Your task to perform on an android device: Toggle the flashlight Image 0: 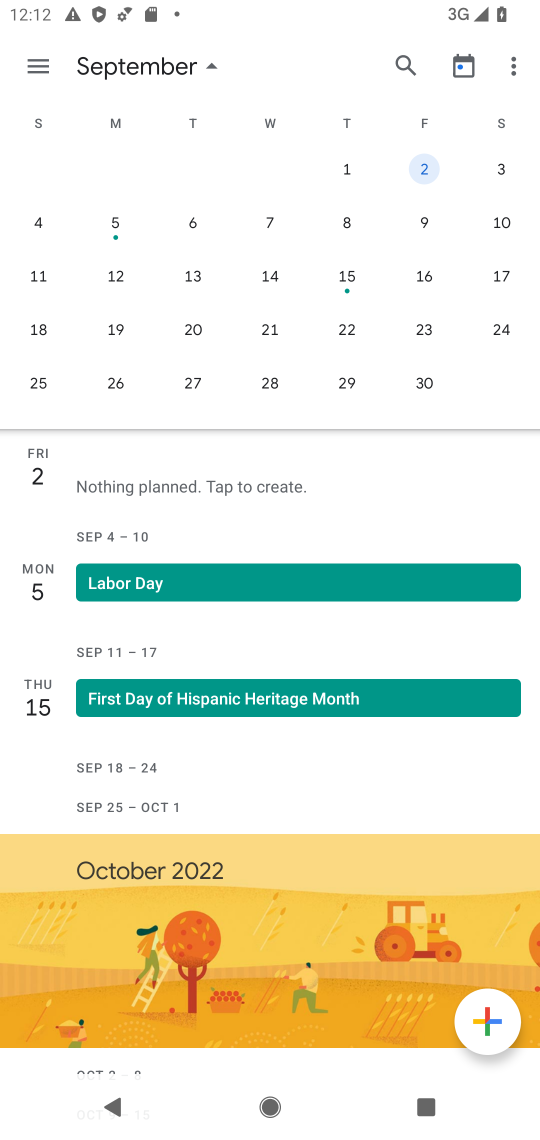
Step 0: drag from (217, 854) to (278, 493)
Your task to perform on an android device: Toggle the flashlight Image 1: 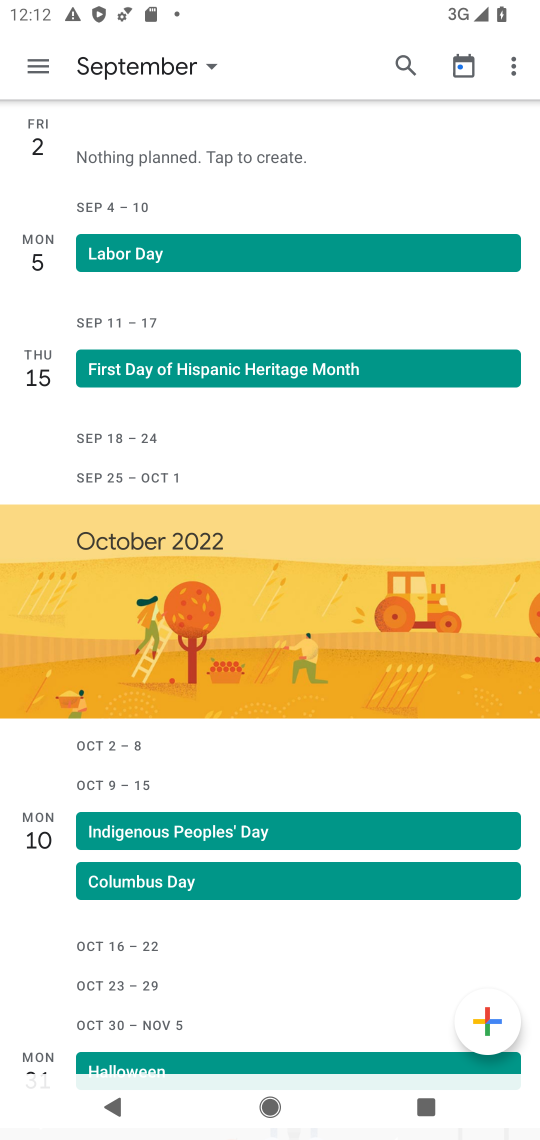
Step 1: drag from (291, 462) to (351, 1129)
Your task to perform on an android device: Toggle the flashlight Image 2: 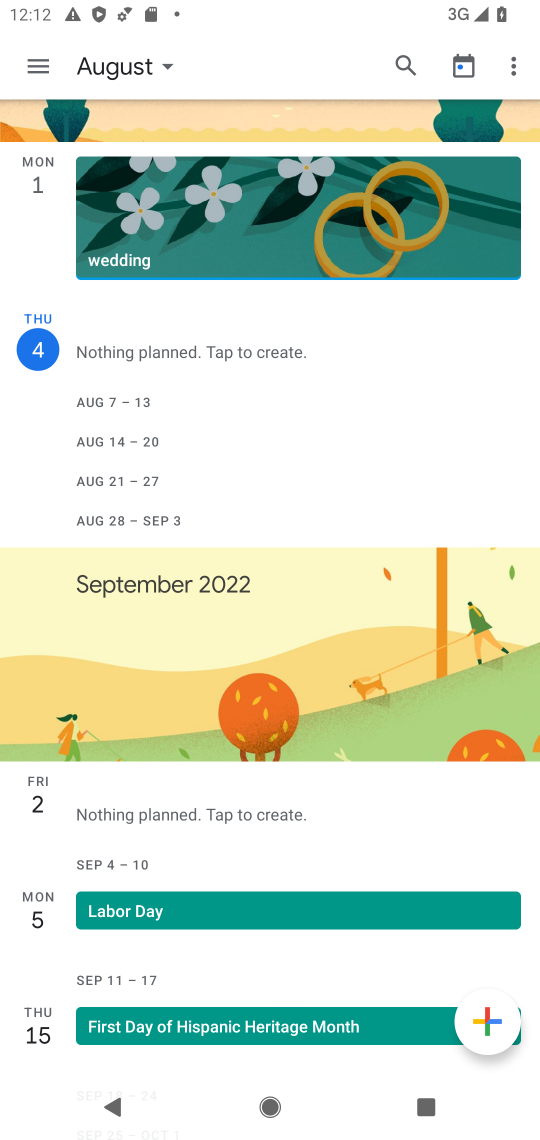
Step 2: press home button
Your task to perform on an android device: Toggle the flashlight Image 3: 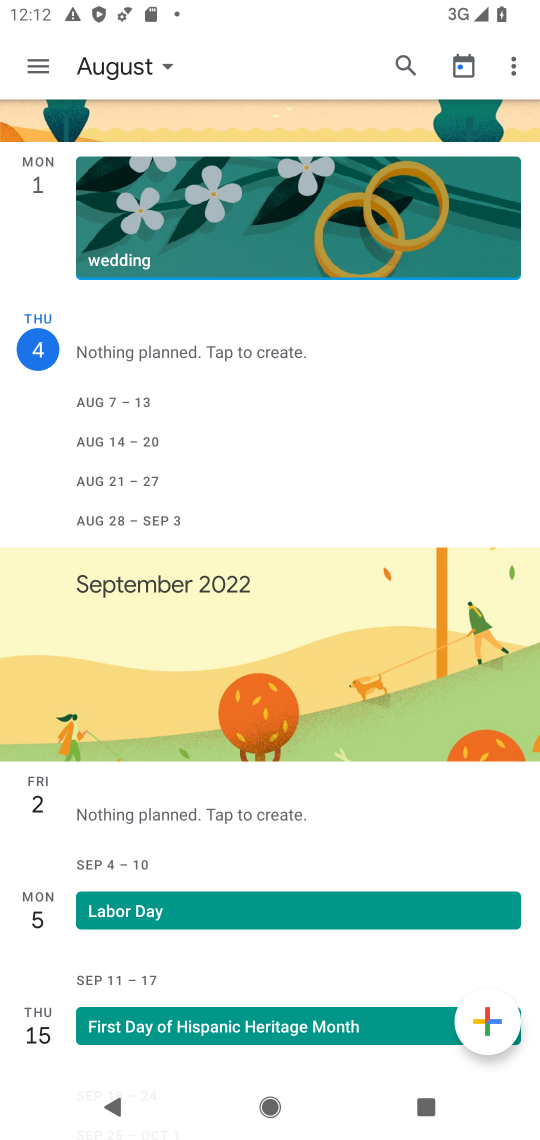
Step 3: drag from (351, 1129) to (535, 822)
Your task to perform on an android device: Toggle the flashlight Image 4: 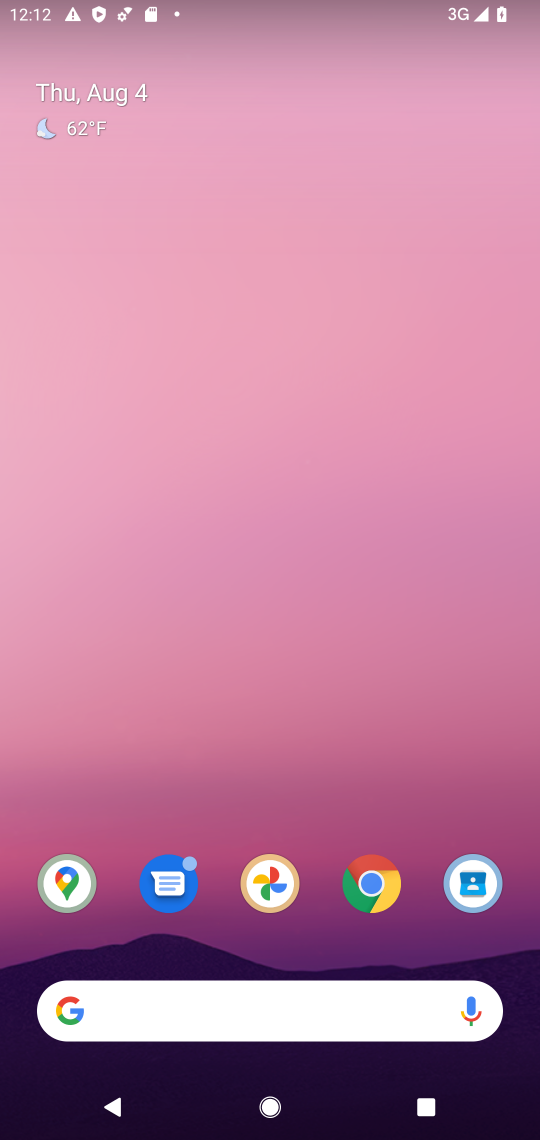
Step 4: drag from (278, 1040) to (267, 11)
Your task to perform on an android device: Toggle the flashlight Image 5: 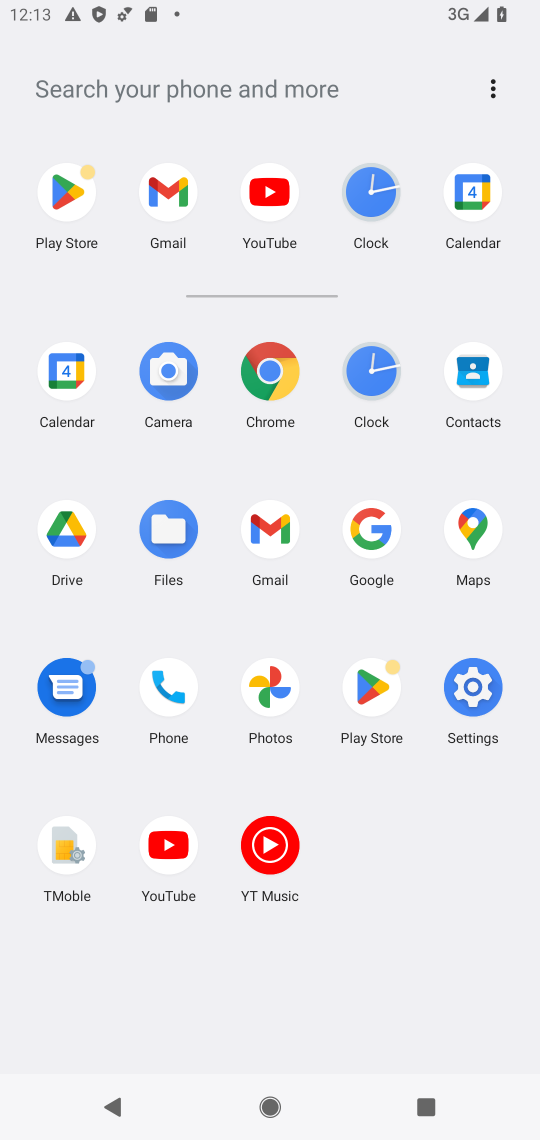
Step 5: click (468, 679)
Your task to perform on an android device: Toggle the flashlight Image 6: 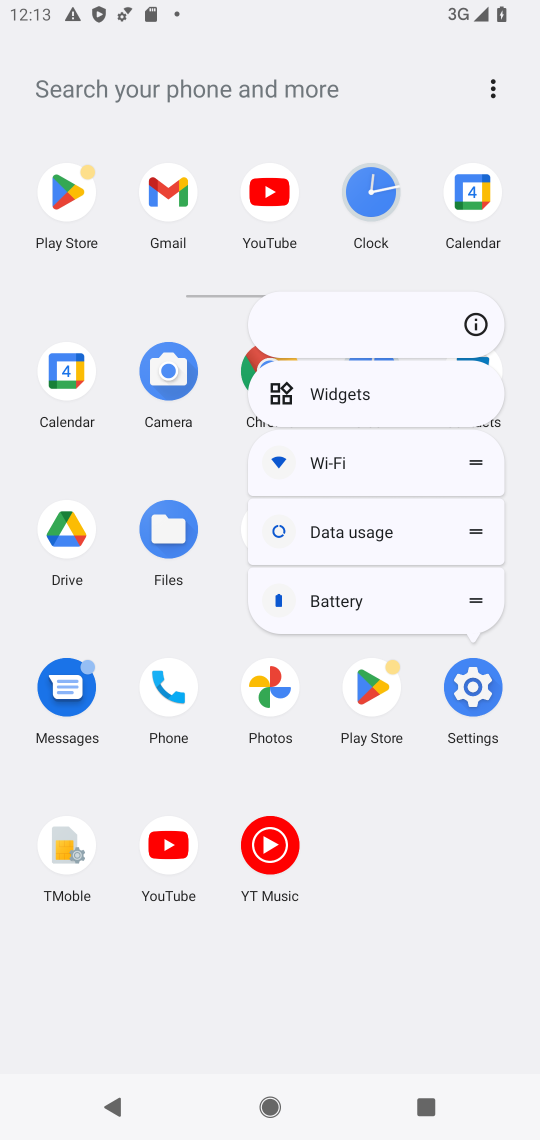
Step 6: click (482, 316)
Your task to perform on an android device: Toggle the flashlight Image 7: 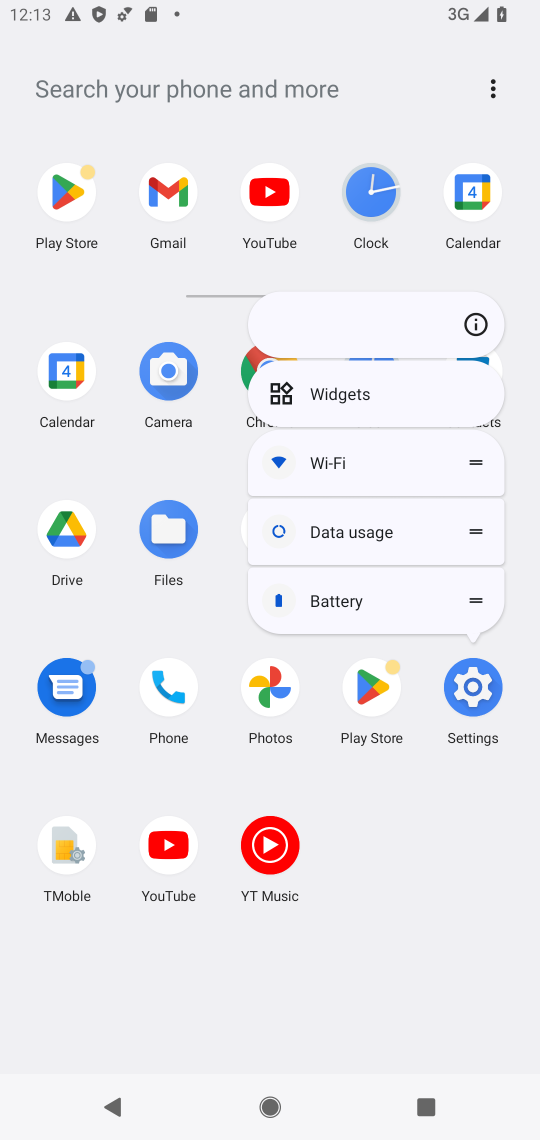
Step 7: click (485, 320)
Your task to perform on an android device: Toggle the flashlight Image 8: 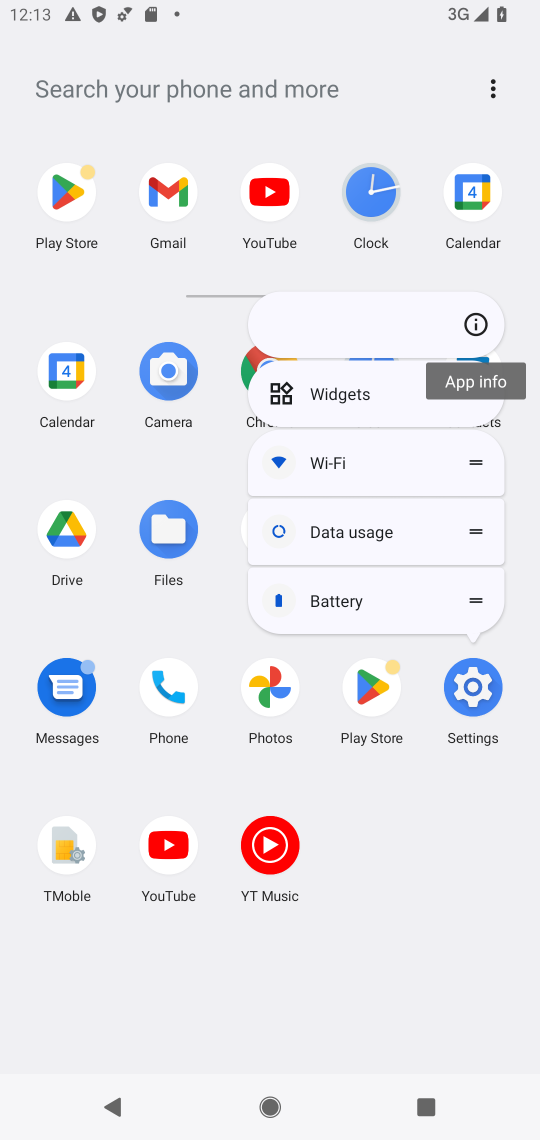
Step 8: click (485, 320)
Your task to perform on an android device: Toggle the flashlight Image 9: 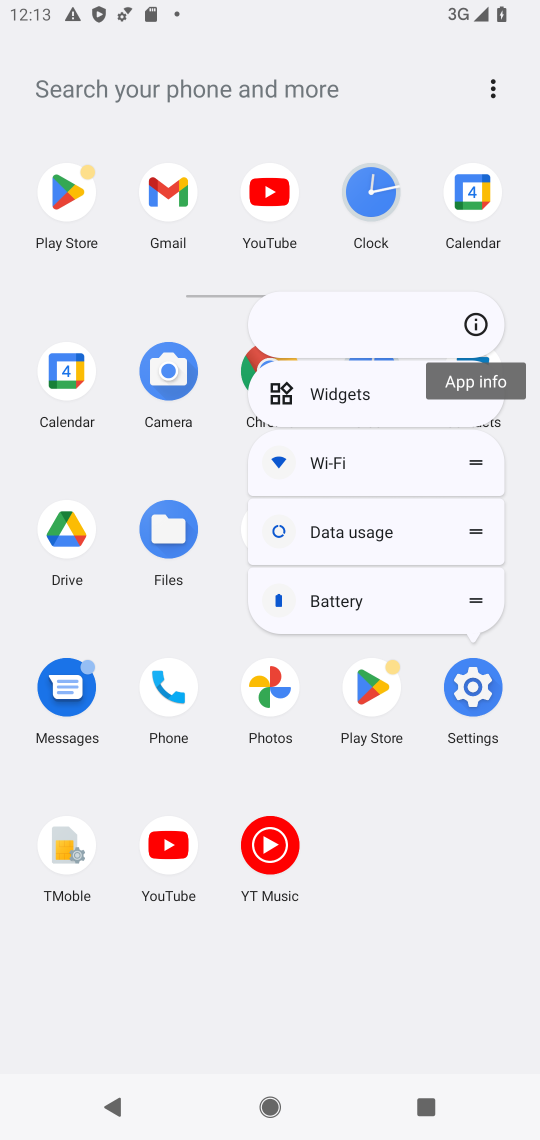
Step 9: click (484, 320)
Your task to perform on an android device: Toggle the flashlight Image 10: 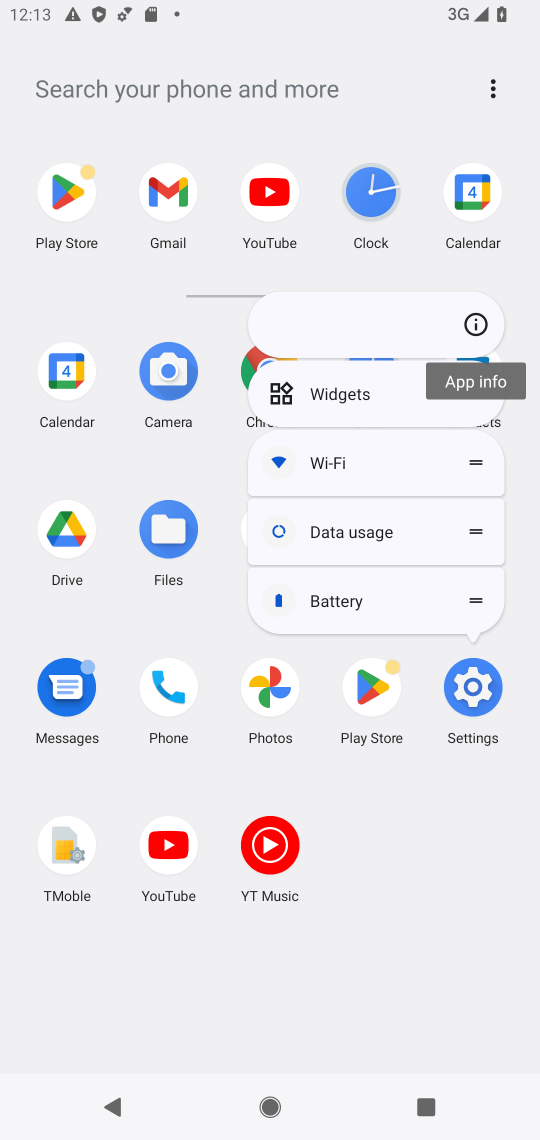
Step 10: click (470, 331)
Your task to perform on an android device: Toggle the flashlight Image 11: 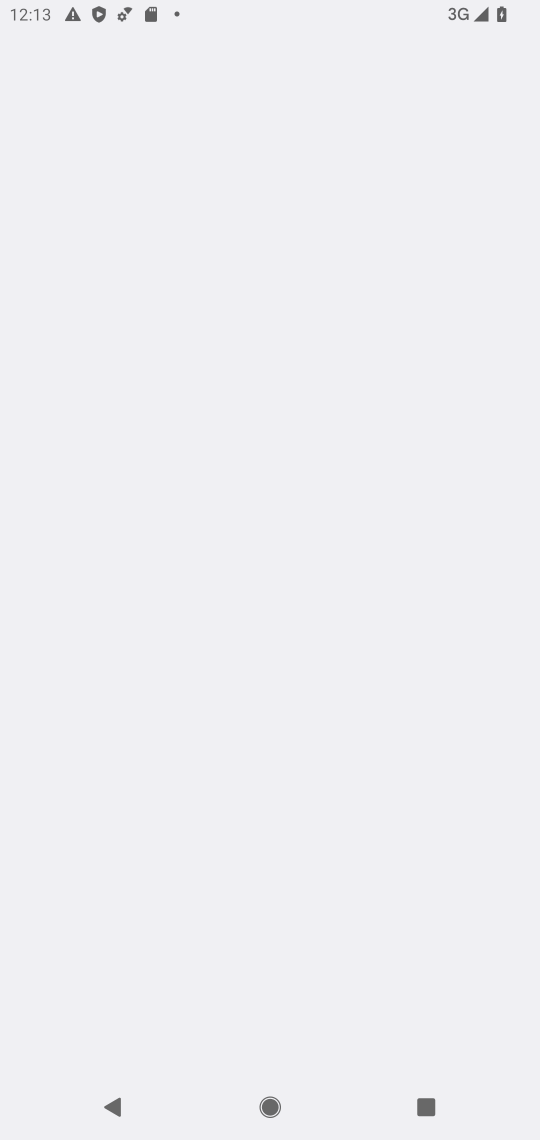
Step 11: click (473, 690)
Your task to perform on an android device: Toggle the flashlight Image 12: 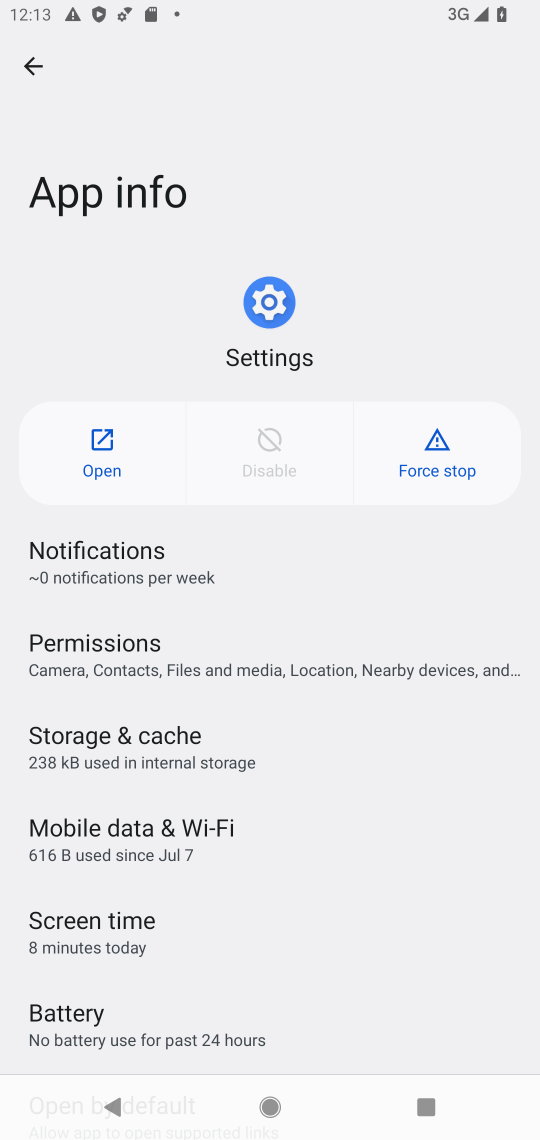
Step 12: click (106, 430)
Your task to perform on an android device: Toggle the flashlight Image 13: 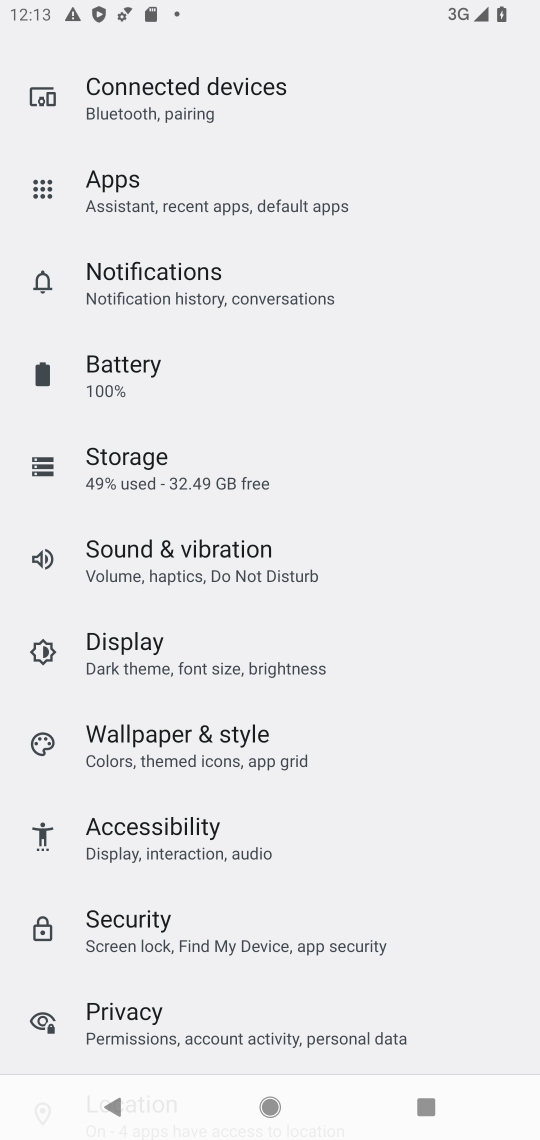
Step 13: drag from (261, 168) to (408, 1131)
Your task to perform on an android device: Toggle the flashlight Image 14: 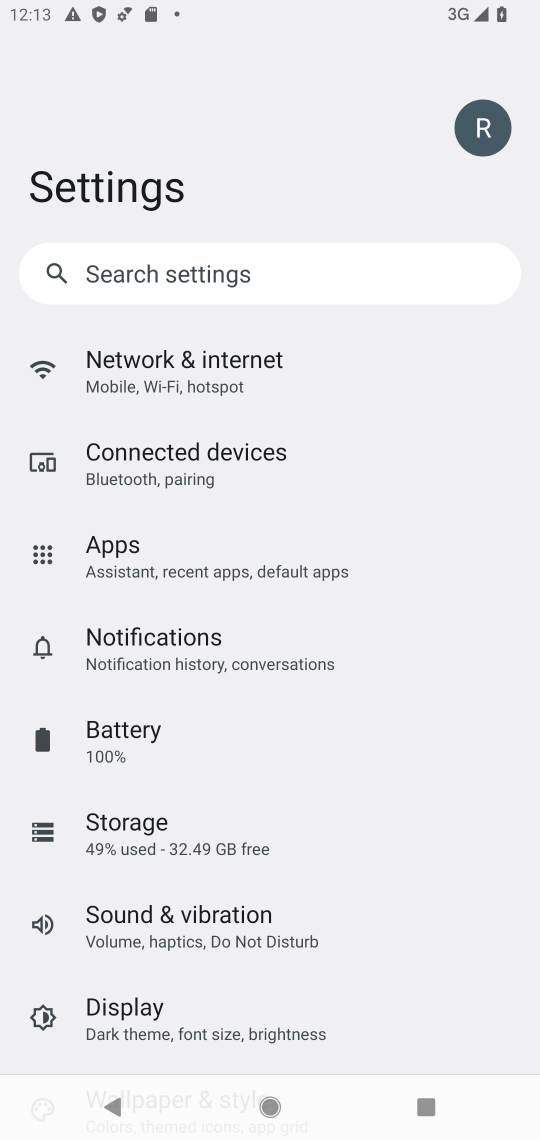
Step 14: click (224, 256)
Your task to perform on an android device: Toggle the flashlight Image 15: 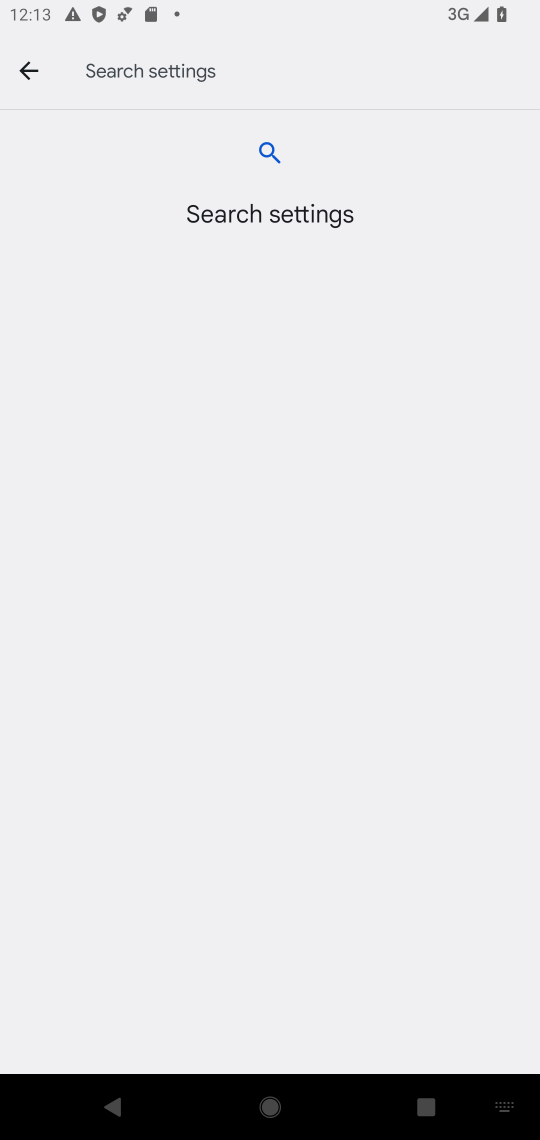
Step 15: type "flashlight"
Your task to perform on an android device: Toggle the flashlight Image 16: 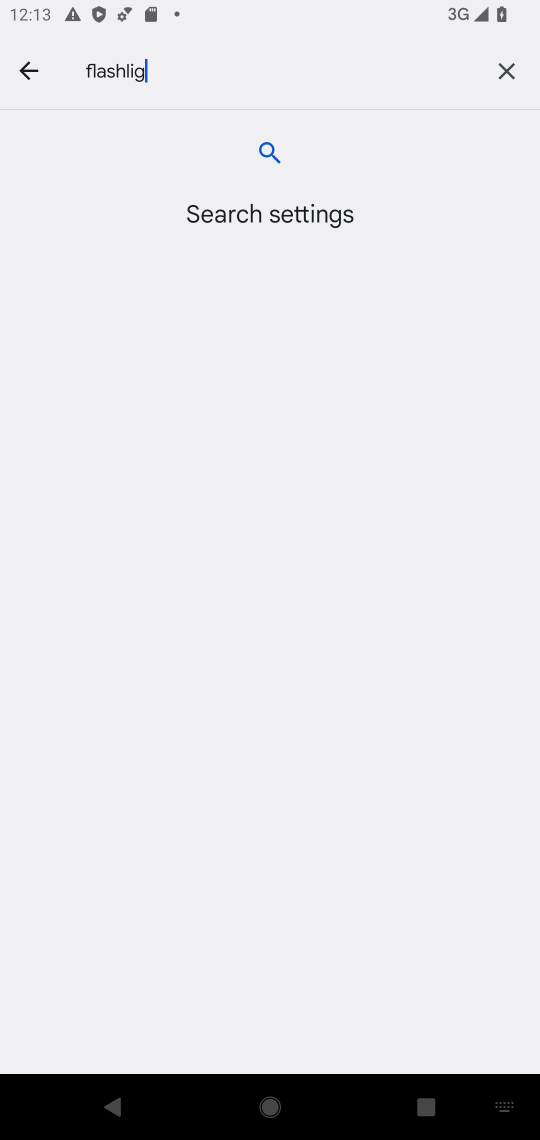
Step 16: type ""
Your task to perform on an android device: Toggle the flashlight Image 17: 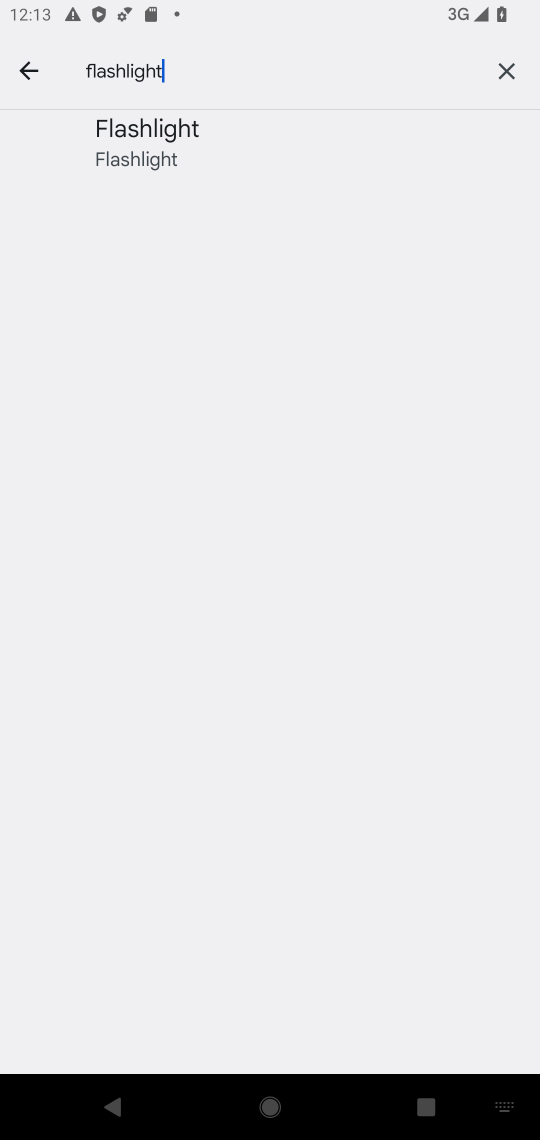
Step 17: click (241, 125)
Your task to perform on an android device: Toggle the flashlight Image 18: 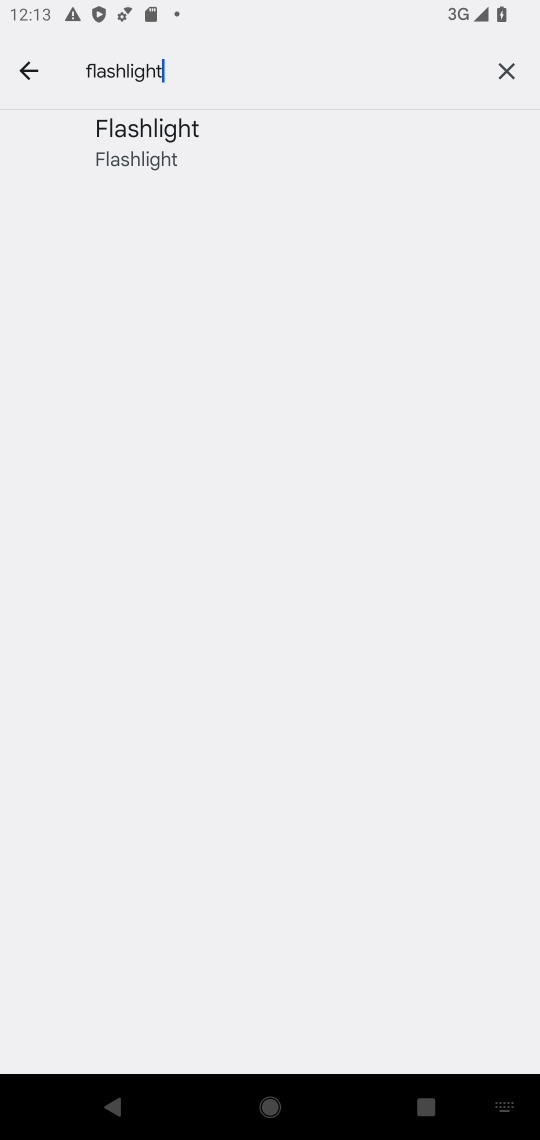
Step 18: click (286, 158)
Your task to perform on an android device: Toggle the flashlight Image 19: 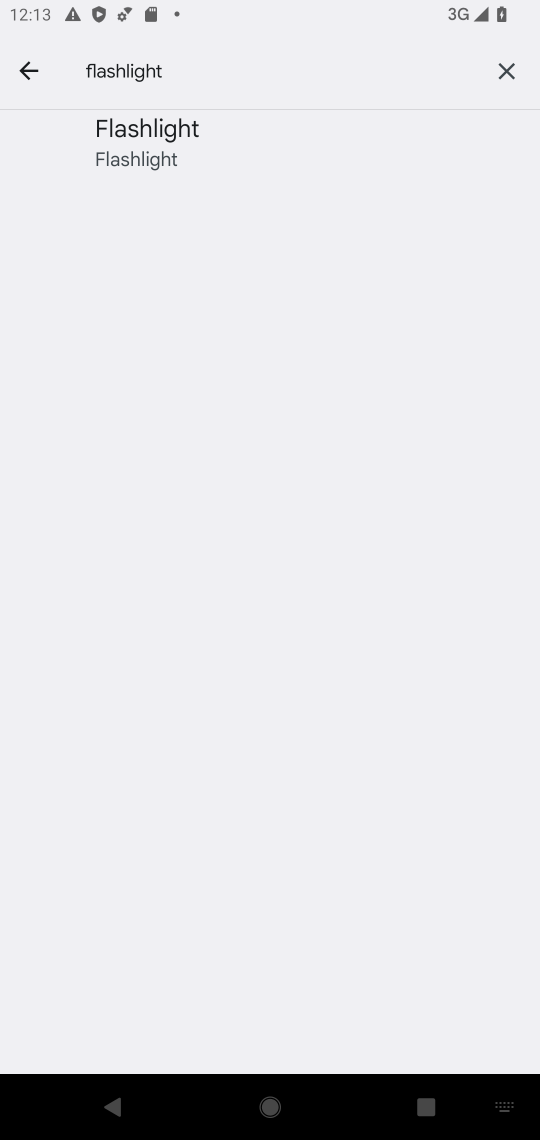
Step 19: click (296, 168)
Your task to perform on an android device: Toggle the flashlight Image 20: 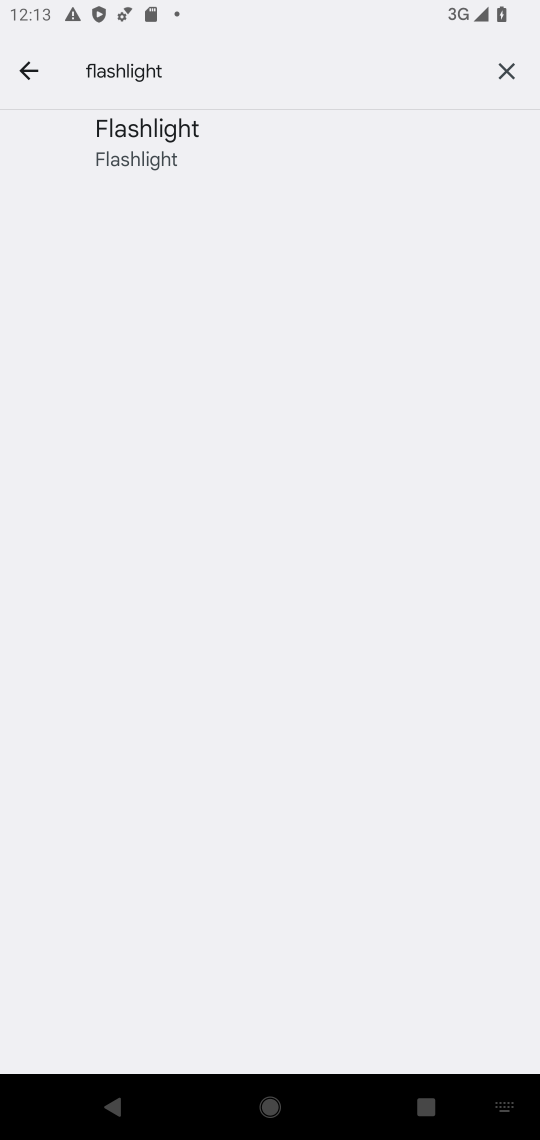
Step 20: task complete